Your task to perform on an android device: Open calendar and show me the first week of next month Image 0: 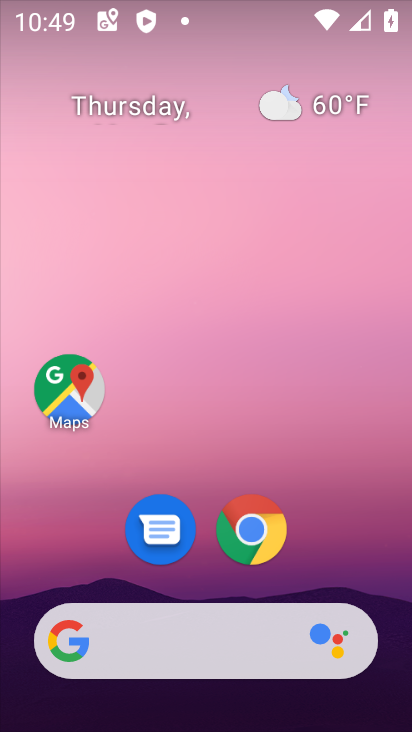
Step 0: drag from (368, 593) to (247, 134)
Your task to perform on an android device: Open calendar and show me the first week of next month Image 1: 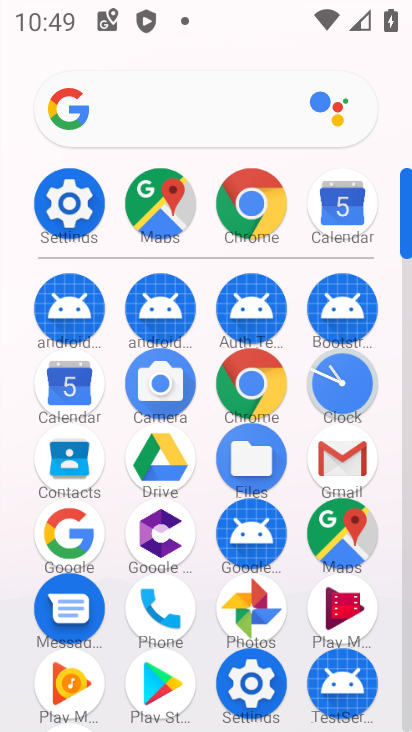
Step 1: click (72, 391)
Your task to perform on an android device: Open calendar and show me the first week of next month Image 2: 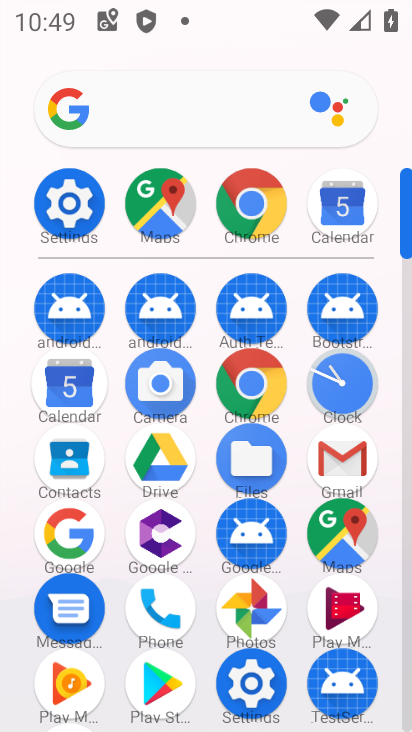
Step 2: click (71, 389)
Your task to perform on an android device: Open calendar and show me the first week of next month Image 3: 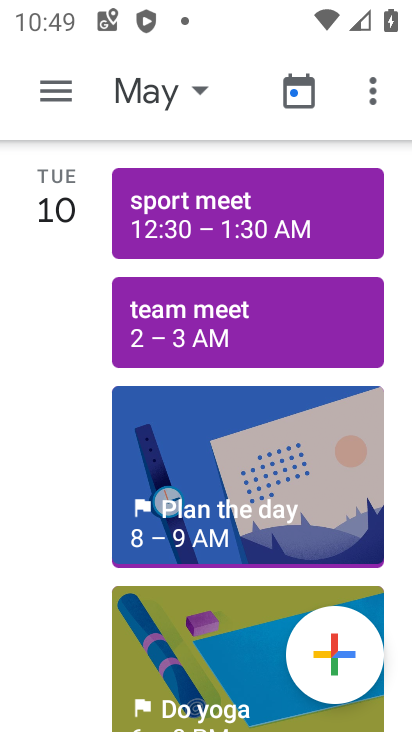
Step 3: click (71, 389)
Your task to perform on an android device: Open calendar and show me the first week of next month Image 4: 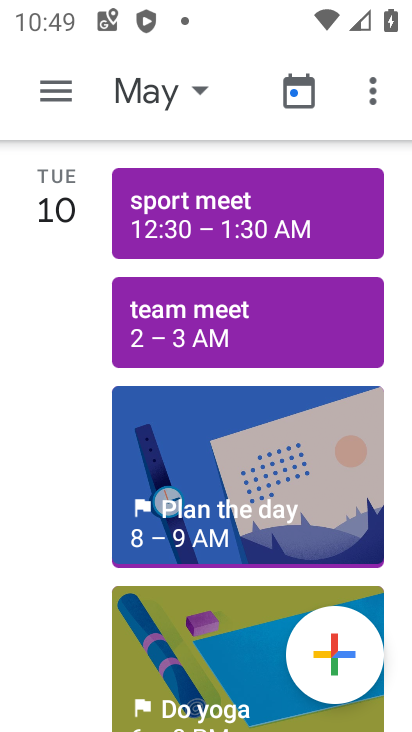
Step 4: click (198, 83)
Your task to perform on an android device: Open calendar and show me the first week of next month Image 5: 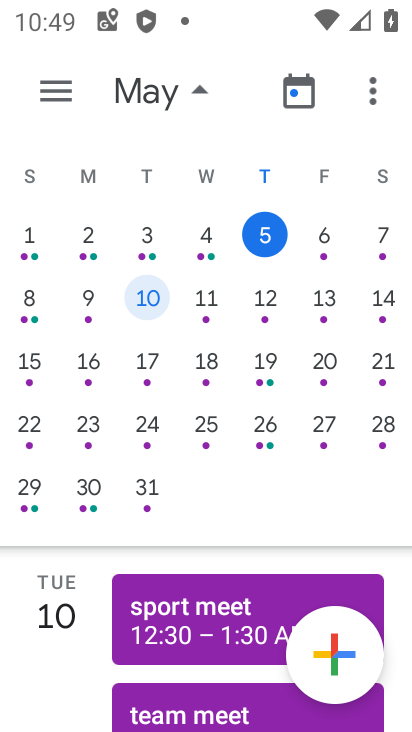
Step 5: drag from (289, 323) to (0, 416)
Your task to perform on an android device: Open calendar and show me the first week of next month Image 6: 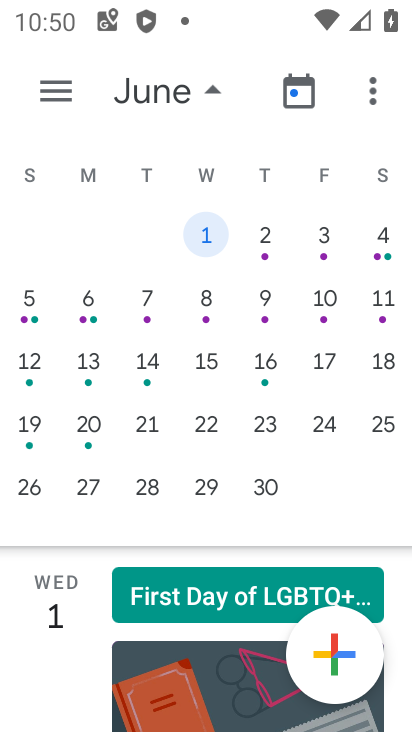
Step 6: click (208, 242)
Your task to perform on an android device: Open calendar and show me the first week of next month Image 7: 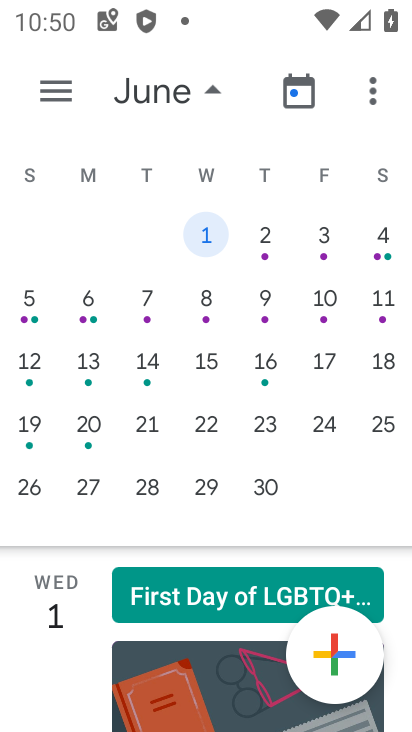
Step 7: click (261, 231)
Your task to perform on an android device: Open calendar and show me the first week of next month Image 8: 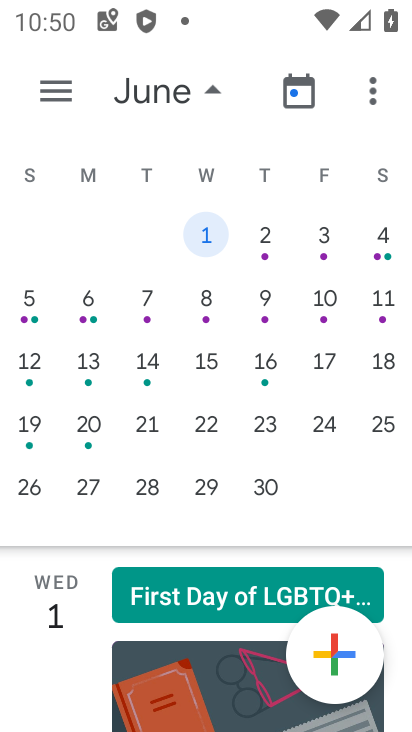
Step 8: click (262, 232)
Your task to perform on an android device: Open calendar and show me the first week of next month Image 9: 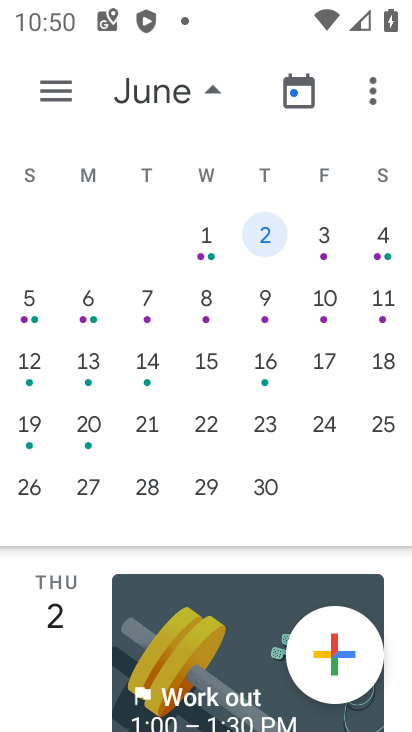
Step 9: click (262, 232)
Your task to perform on an android device: Open calendar and show me the first week of next month Image 10: 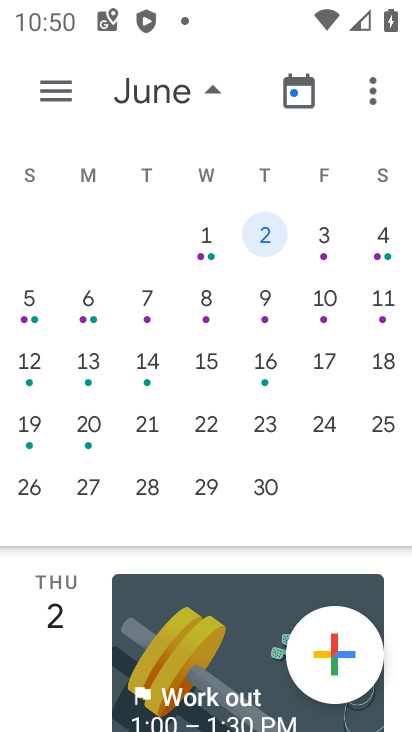
Step 10: task complete